Your task to perform on an android device: Show me popular videos on Youtube Image 0: 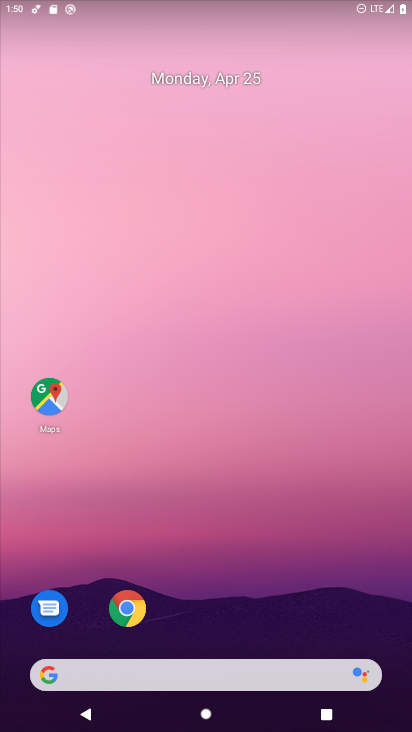
Step 0: drag from (390, 610) to (305, 78)
Your task to perform on an android device: Show me popular videos on Youtube Image 1: 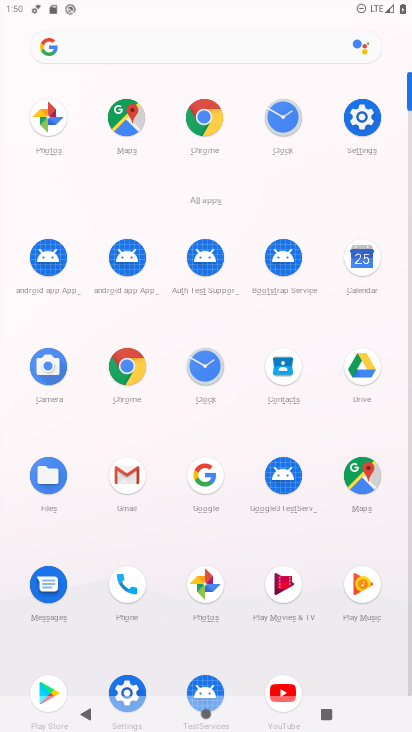
Step 1: click (279, 680)
Your task to perform on an android device: Show me popular videos on Youtube Image 2: 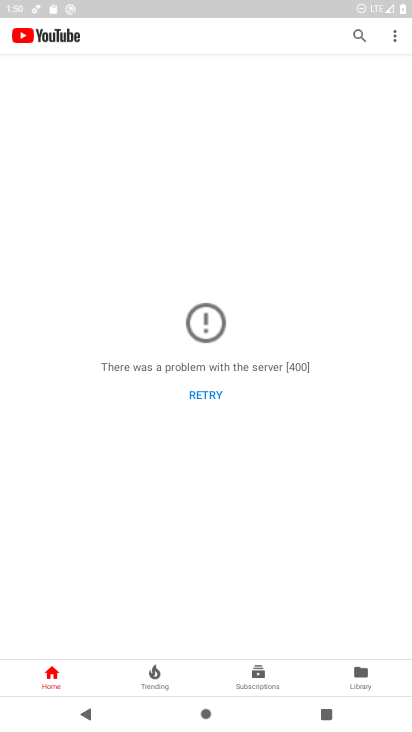
Step 2: click (231, 384)
Your task to perform on an android device: Show me popular videos on Youtube Image 3: 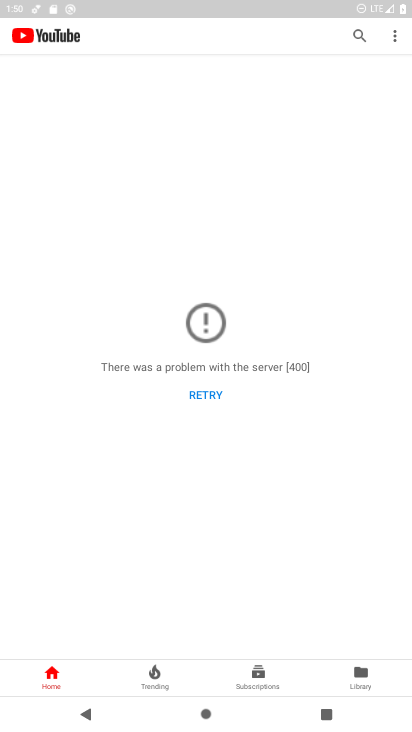
Step 3: click (201, 398)
Your task to perform on an android device: Show me popular videos on Youtube Image 4: 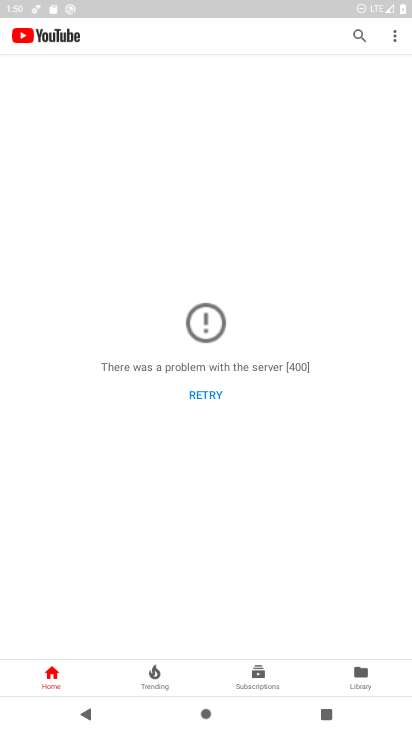
Step 4: click (201, 398)
Your task to perform on an android device: Show me popular videos on Youtube Image 5: 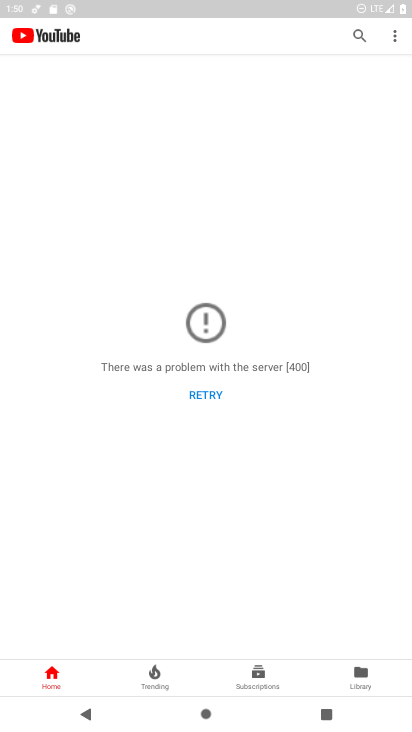
Step 5: click (201, 398)
Your task to perform on an android device: Show me popular videos on Youtube Image 6: 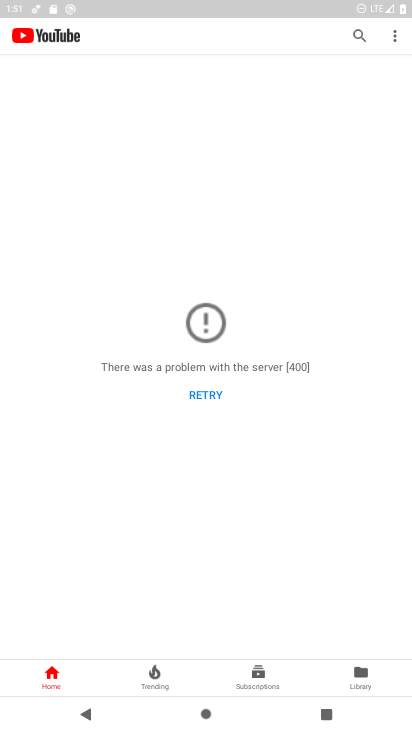
Step 6: task complete